Your task to perform on an android device: Do I have any events this weekend? Image 0: 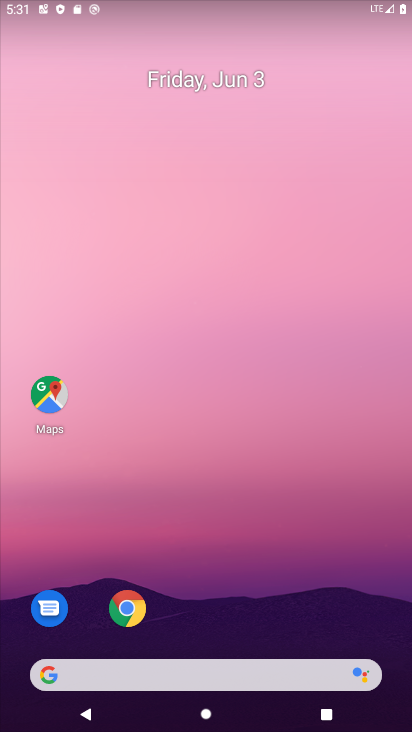
Step 0: click (146, 463)
Your task to perform on an android device: Do I have any events this weekend? Image 1: 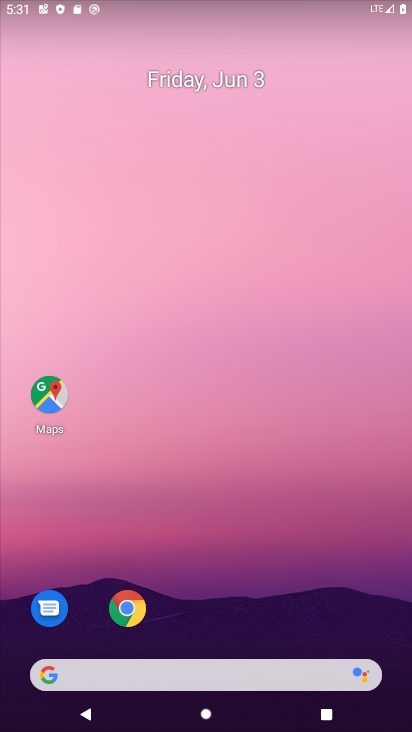
Step 1: drag from (192, 662) to (243, 125)
Your task to perform on an android device: Do I have any events this weekend? Image 2: 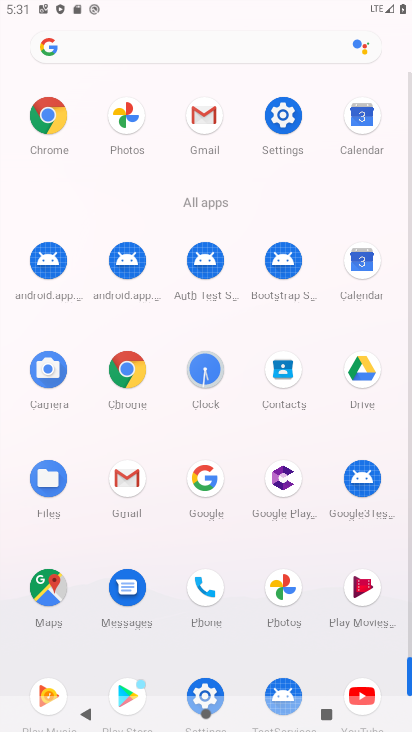
Step 2: click (369, 115)
Your task to perform on an android device: Do I have any events this weekend? Image 3: 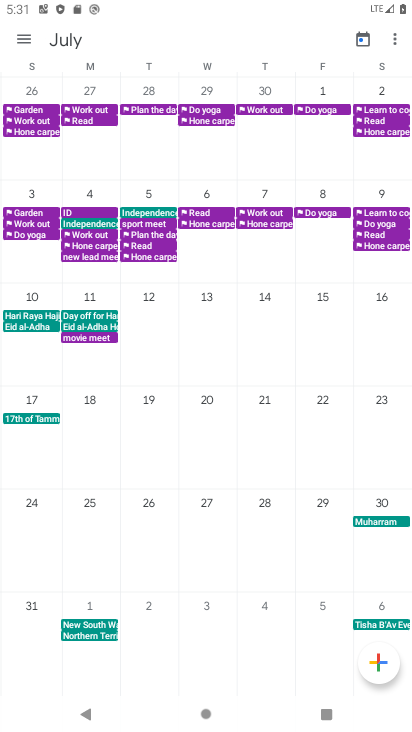
Step 3: task complete